Your task to perform on an android device: empty trash in the gmail app Image 0: 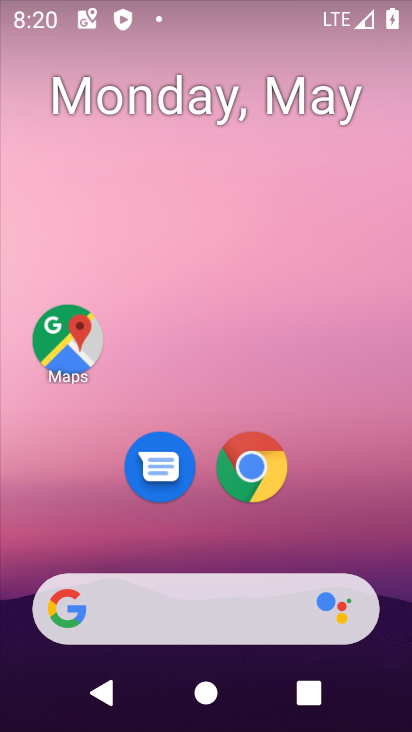
Step 0: press home button
Your task to perform on an android device: empty trash in the gmail app Image 1: 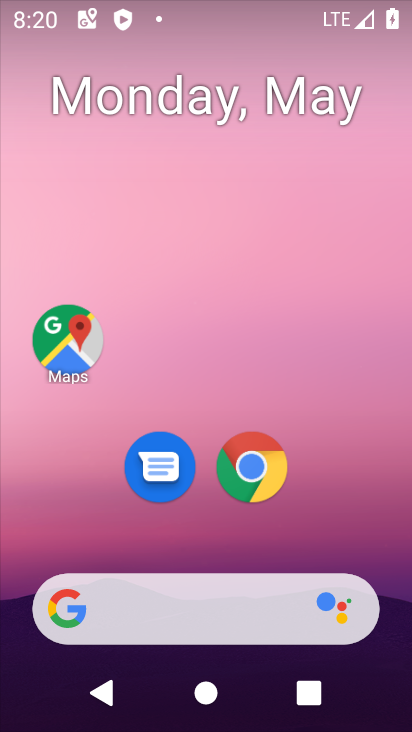
Step 1: drag from (329, 515) to (250, 64)
Your task to perform on an android device: empty trash in the gmail app Image 2: 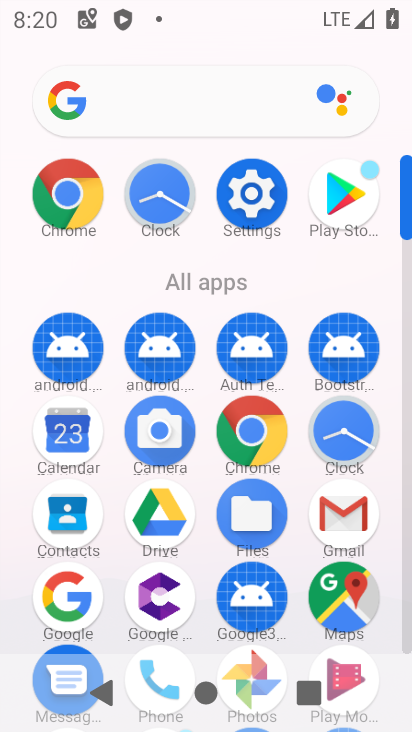
Step 2: click (348, 504)
Your task to perform on an android device: empty trash in the gmail app Image 3: 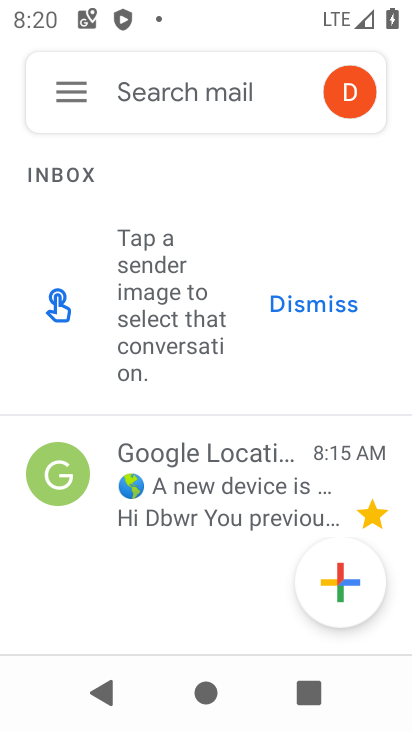
Step 3: click (81, 92)
Your task to perform on an android device: empty trash in the gmail app Image 4: 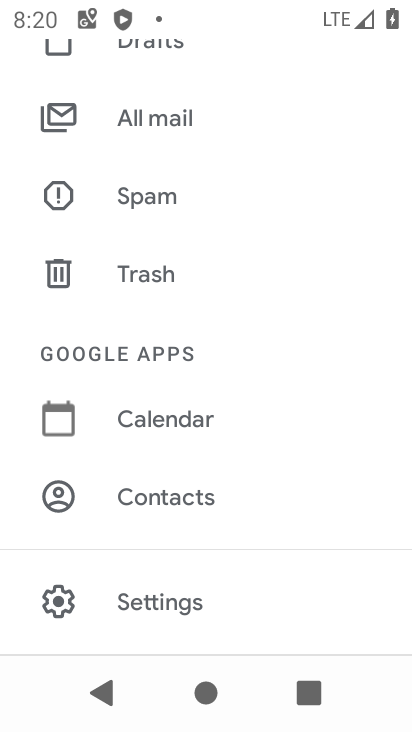
Step 4: click (186, 253)
Your task to perform on an android device: empty trash in the gmail app Image 5: 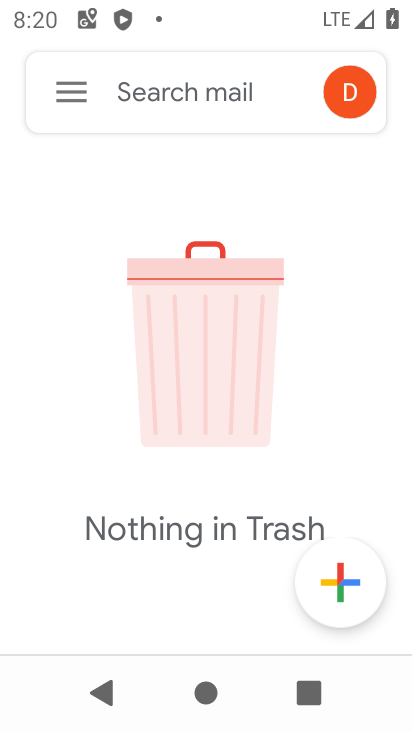
Step 5: task complete